Your task to perform on an android device: Clear the shopping cart on walmart.com. Add "razer blade" to the cart on walmart.com Image 0: 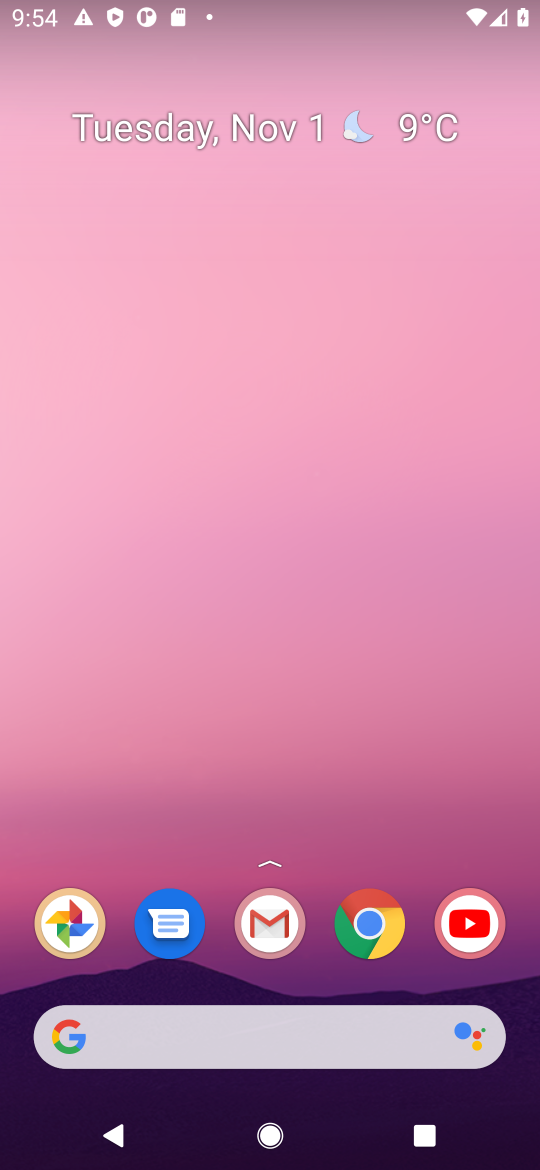
Step 0: drag from (325, 993) to (371, 147)
Your task to perform on an android device: Clear the shopping cart on walmart.com. Add "razer blade" to the cart on walmart.com Image 1: 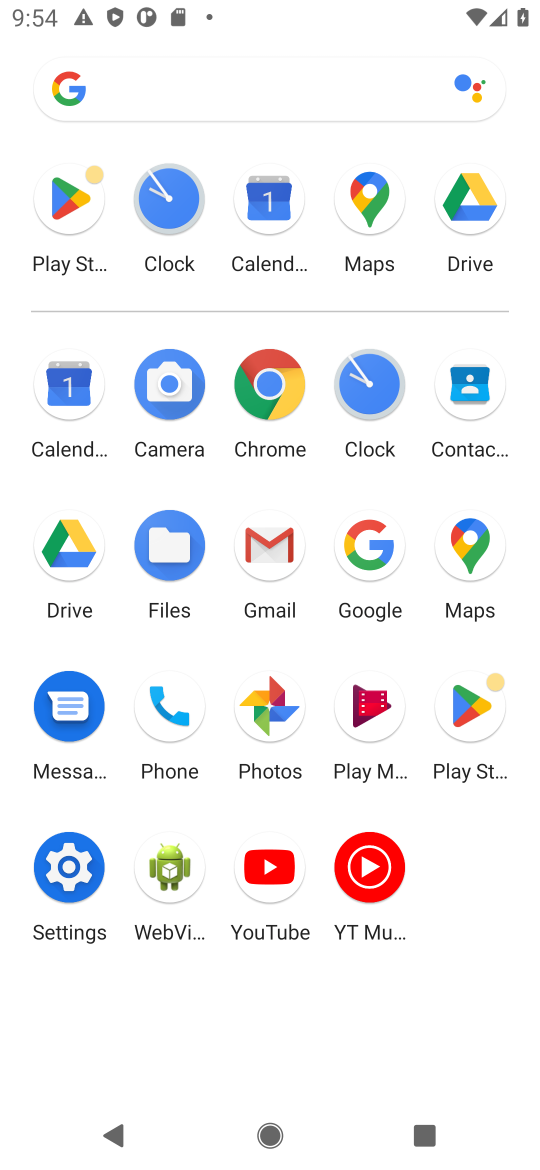
Step 1: click (269, 389)
Your task to perform on an android device: Clear the shopping cart on walmart.com. Add "razer blade" to the cart on walmart.com Image 2: 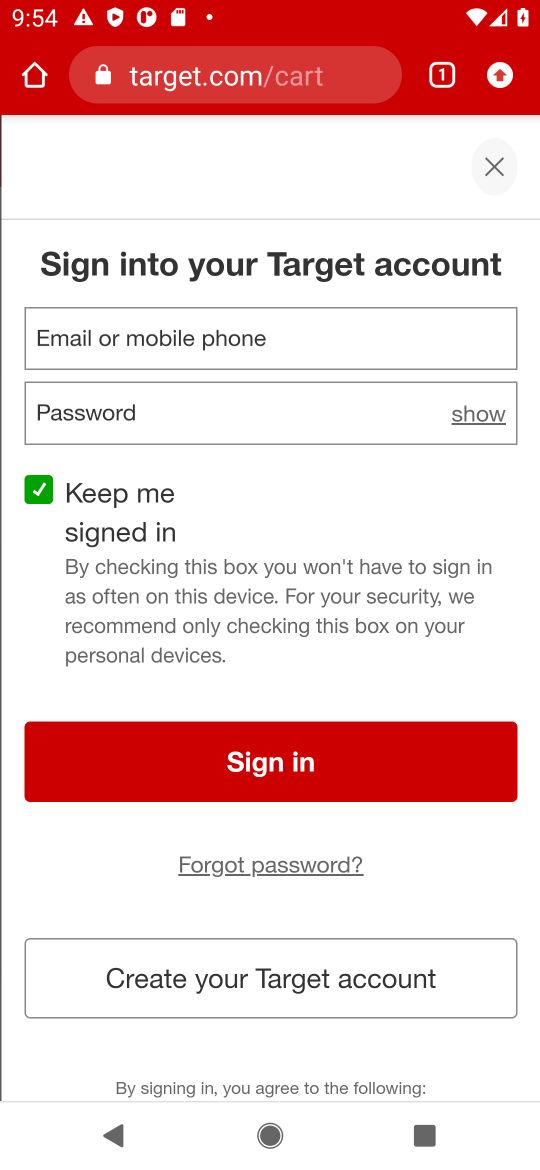
Step 2: click (238, 82)
Your task to perform on an android device: Clear the shopping cart on walmart.com. Add "razer blade" to the cart on walmart.com Image 3: 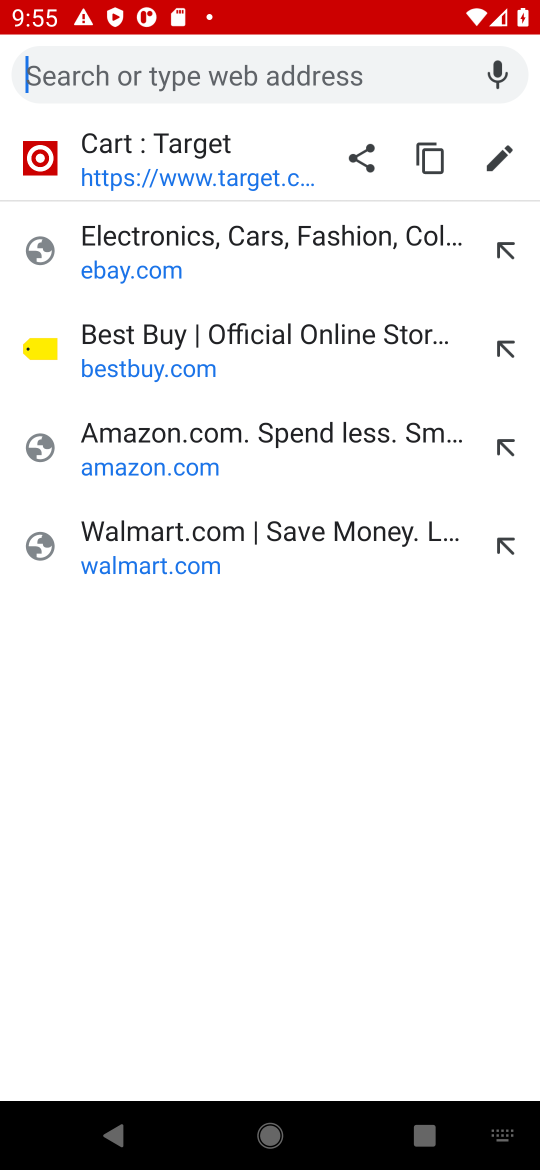
Step 3: type "walmart.com"
Your task to perform on an android device: Clear the shopping cart on walmart.com. Add "razer blade" to the cart on walmart.com Image 4: 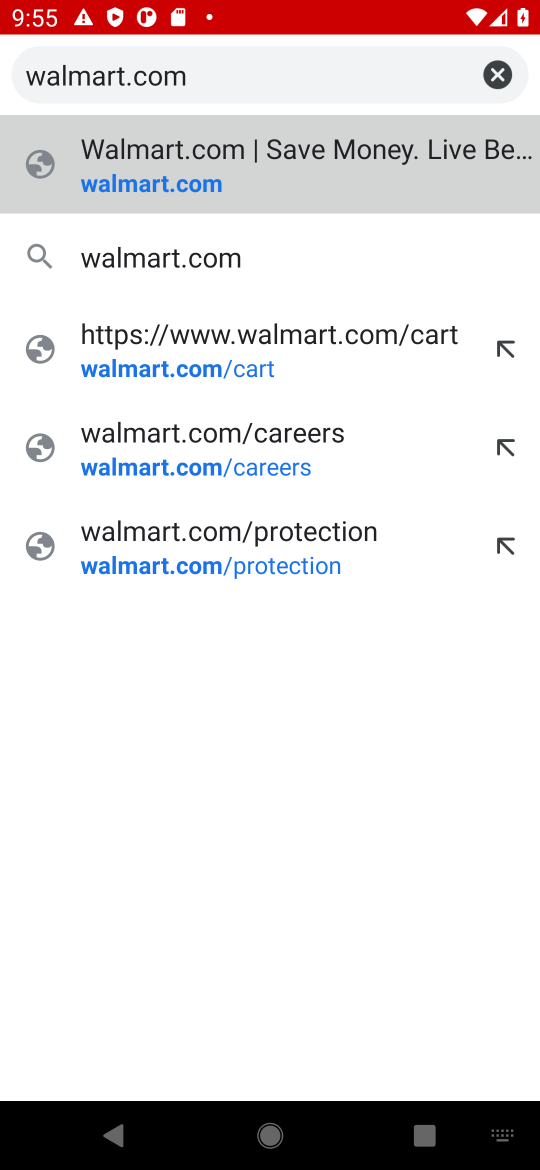
Step 4: press enter
Your task to perform on an android device: Clear the shopping cart on walmart.com. Add "razer blade" to the cart on walmart.com Image 5: 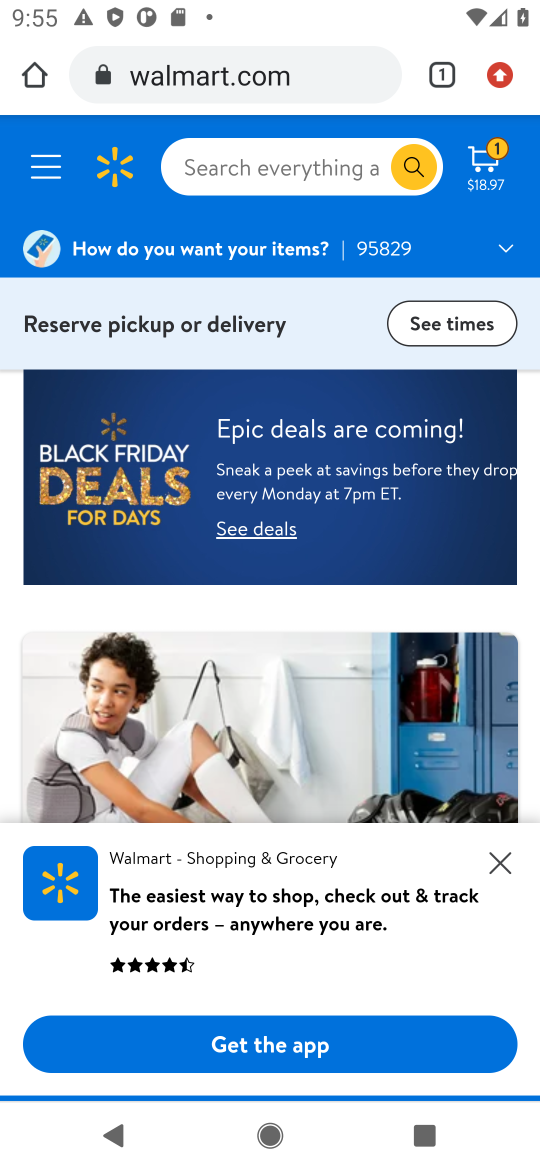
Step 5: click (495, 163)
Your task to perform on an android device: Clear the shopping cart on walmart.com. Add "razer blade" to the cart on walmart.com Image 6: 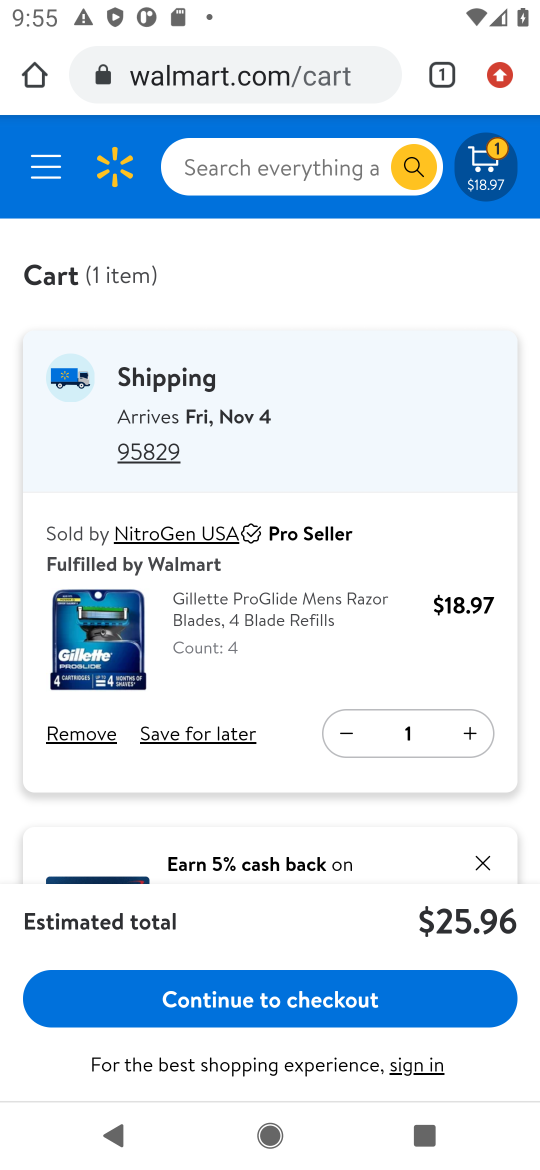
Step 6: click (73, 738)
Your task to perform on an android device: Clear the shopping cart on walmart.com. Add "razer blade" to the cart on walmart.com Image 7: 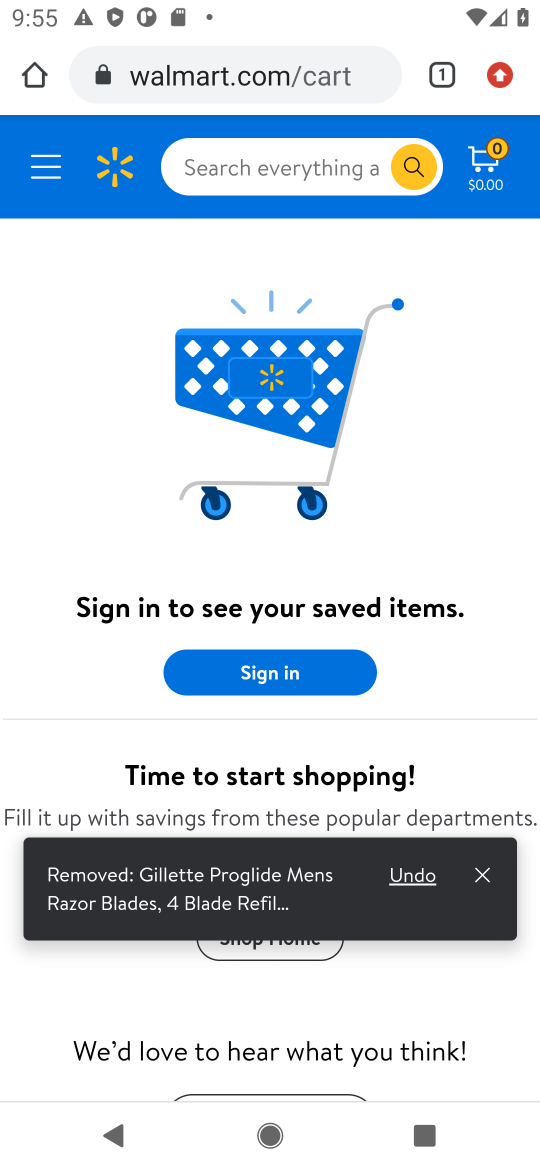
Step 7: click (334, 176)
Your task to perform on an android device: Clear the shopping cart on walmart.com. Add "razer blade" to the cart on walmart.com Image 8: 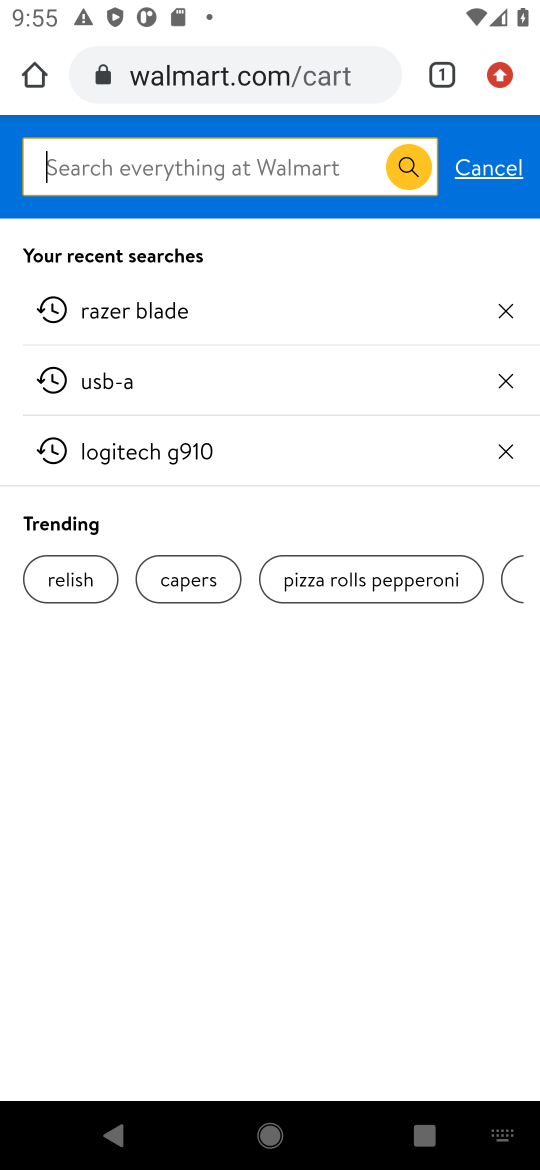
Step 8: type "razer blade"
Your task to perform on an android device: Clear the shopping cart on walmart.com. Add "razer blade" to the cart on walmart.com Image 9: 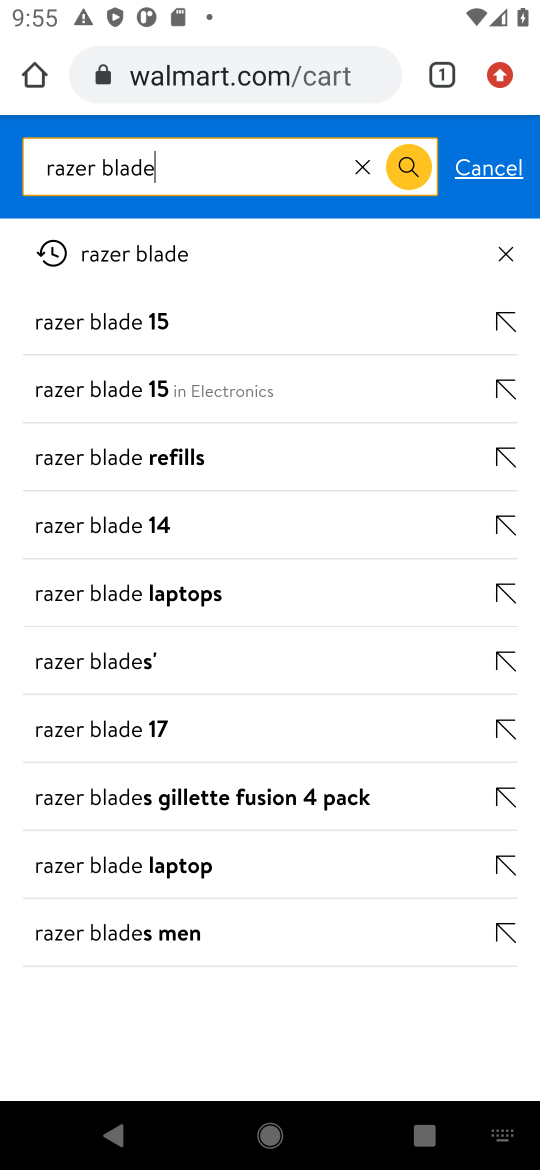
Step 9: press enter
Your task to perform on an android device: Clear the shopping cart on walmart.com. Add "razer blade" to the cart on walmart.com Image 10: 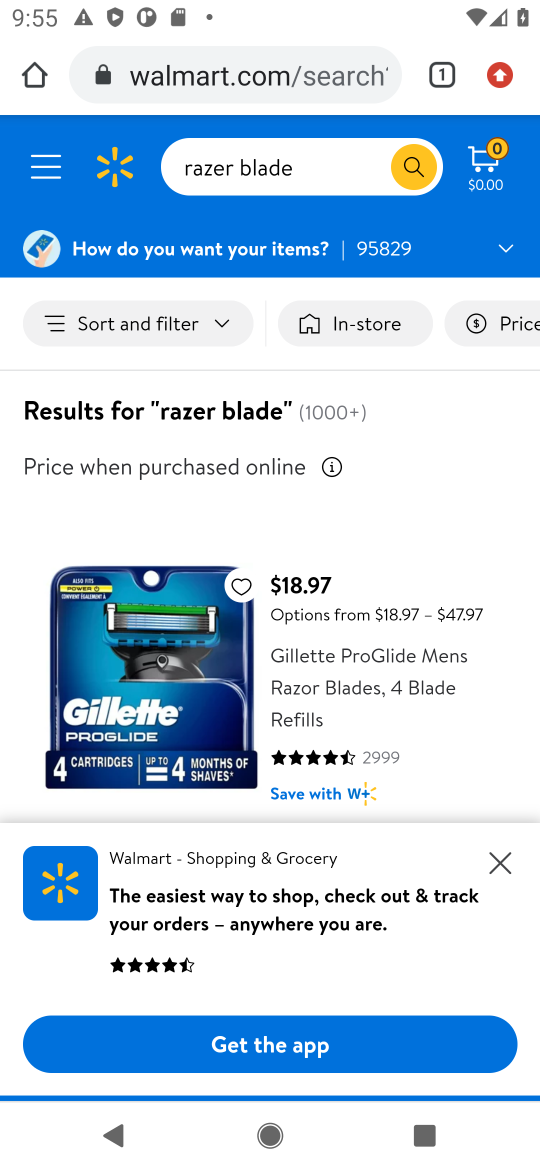
Step 10: click (134, 696)
Your task to perform on an android device: Clear the shopping cart on walmart.com. Add "razer blade" to the cart on walmart.com Image 11: 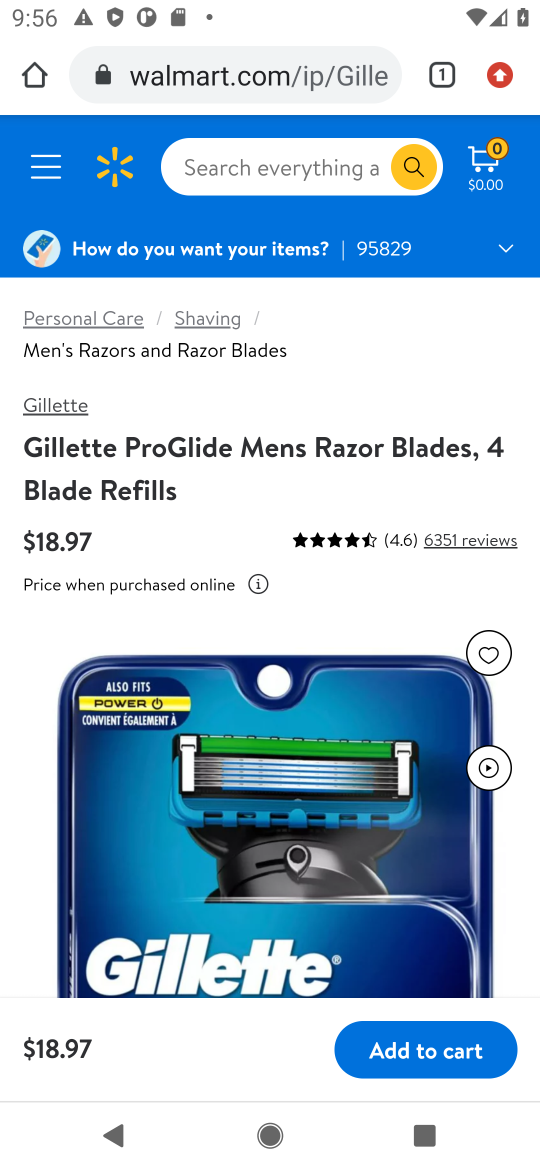
Step 11: click (446, 1038)
Your task to perform on an android device: Clear the shopping cart on walmart.com. Add "razer blade" to the cart on walmart.com Image 12: 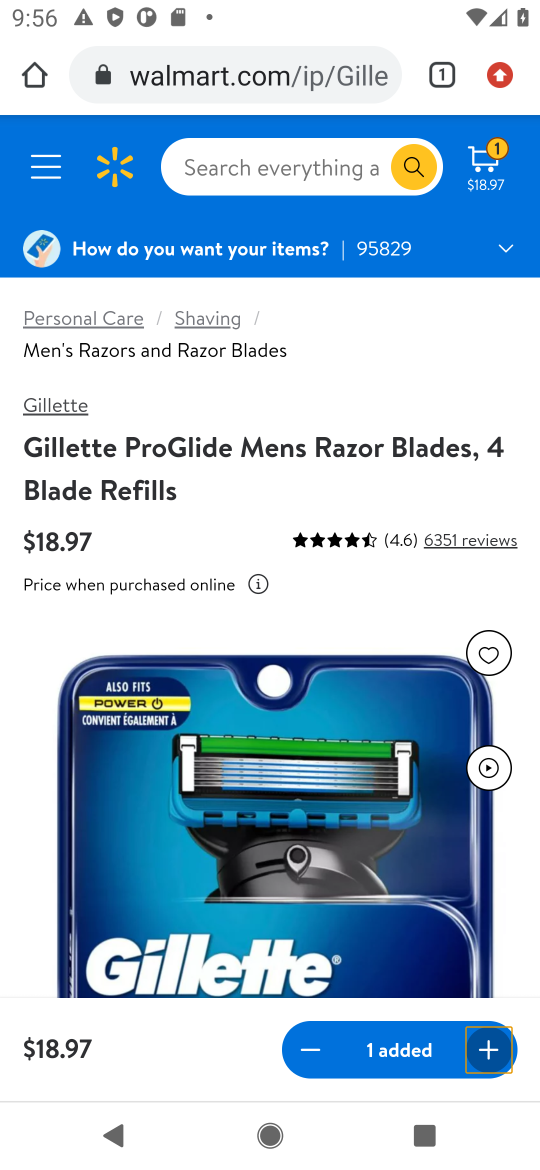
Step 12: task complete